Your task to perform on an android device: Open the map Image 0: 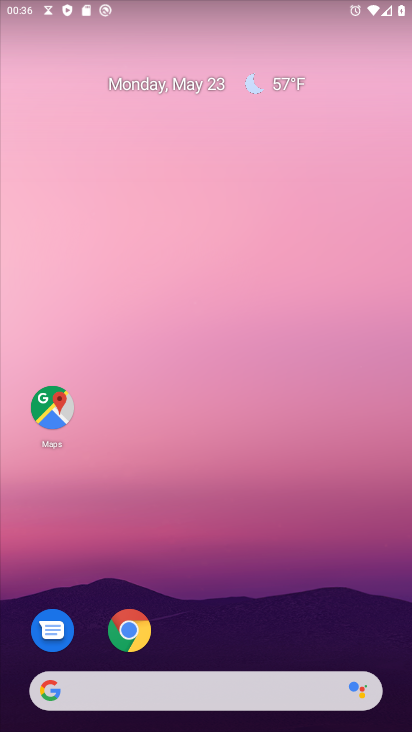
Step 0: click (55, 421)
Your task to perform on an android device: Open the map Image 1: 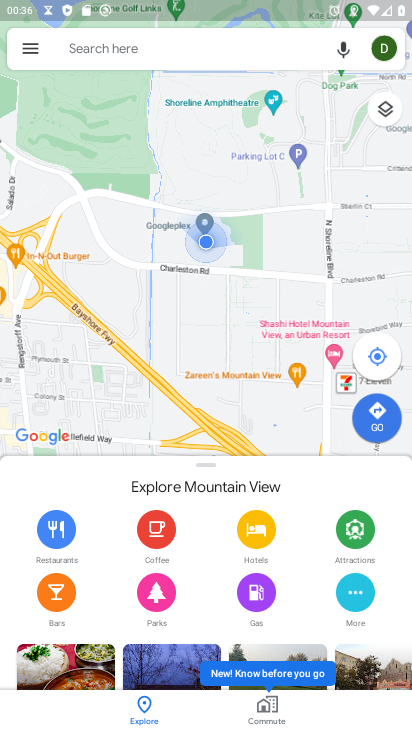
Step 1: task complete